Your task to perform on an android device: search for starred emails in the gmail app Image 0: 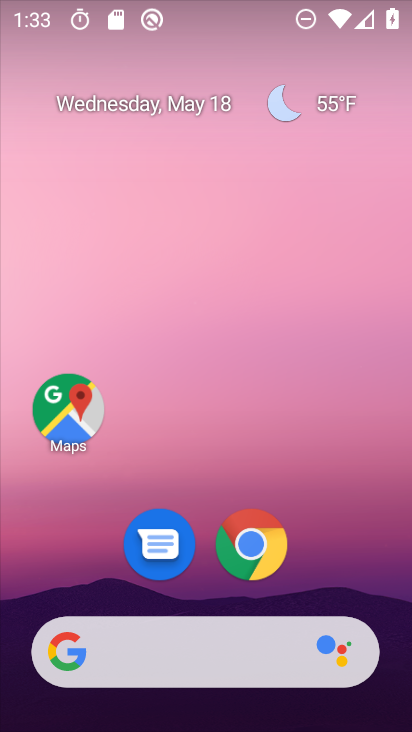
Step 0: drag from (335, 536) to (279, 87)
Your task to perform on an android device: search for starred emails in the gmail app Image 1: 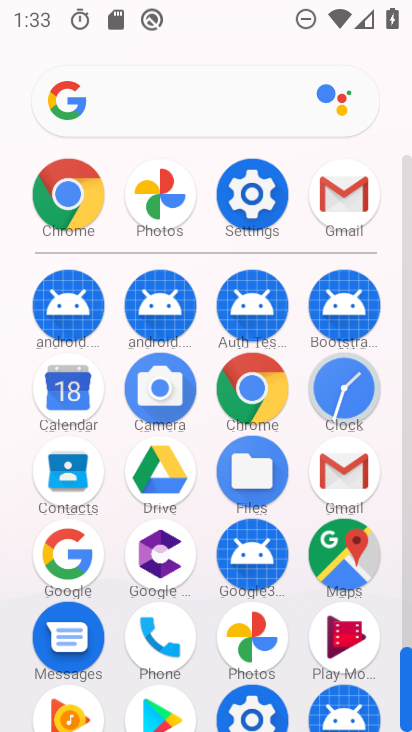
Step 1: click (339, 206)
Your task to perform on an android device: search for starred emails in the gmail app Image 2: 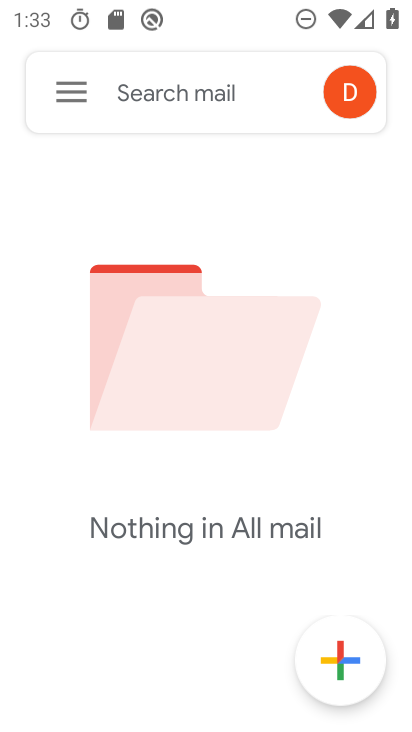
Step 2: click (57, 99)
Your task to perform on an android device: search for starred emails in the gmail app Image 3: 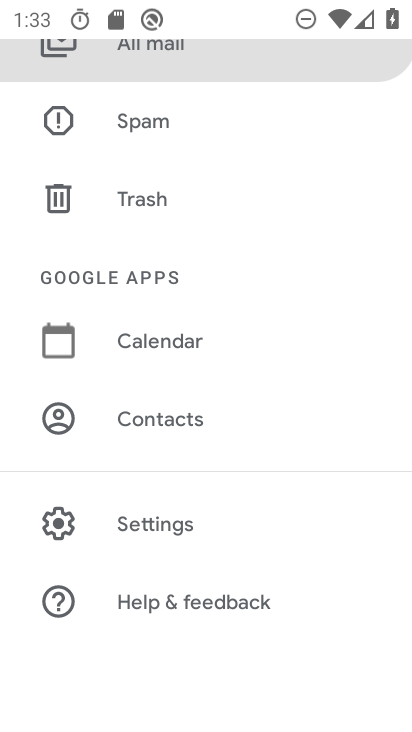
Step 3: drag from (166, 125) to (123, 519)
Your task to perform on an android device: search for starred emails in the gmail app Image 4: 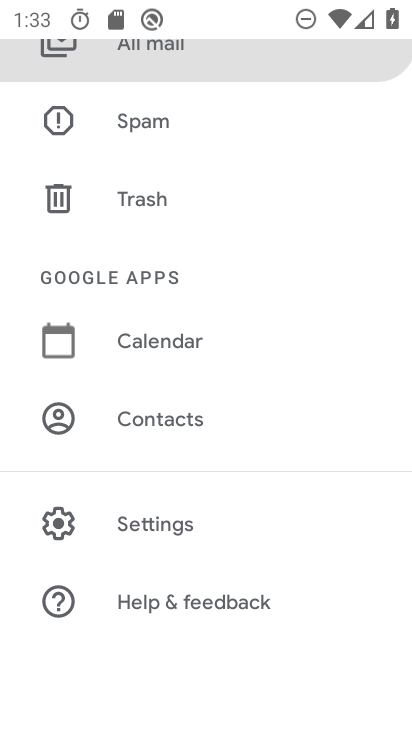
Step 4: drag from (267, 189) to (302, 644)
Your task to perform on an android device: search for starred emails in the gmail app Image 5: 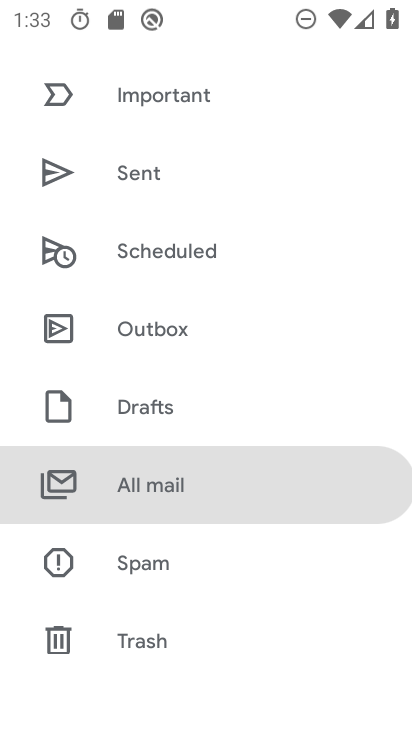
Step 5: drag from (278, 192) to (270, 532)
Your task to perform on an android device: search for starred emails in the gmail app Image 6: 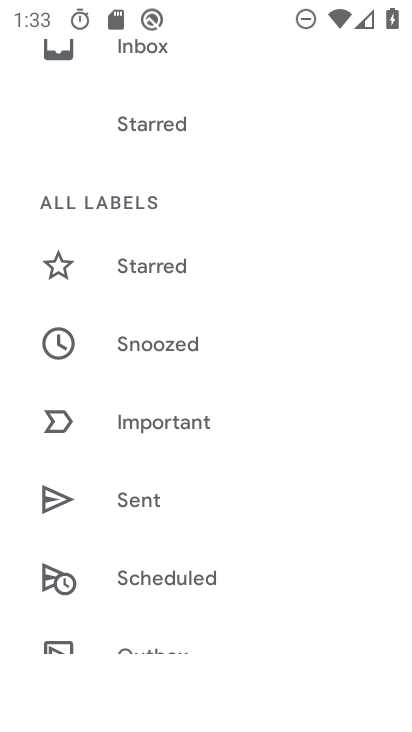
Step 6: click (182, 259)
Your task to perform on an android device: search for starred emails in the gmail app Image 7: 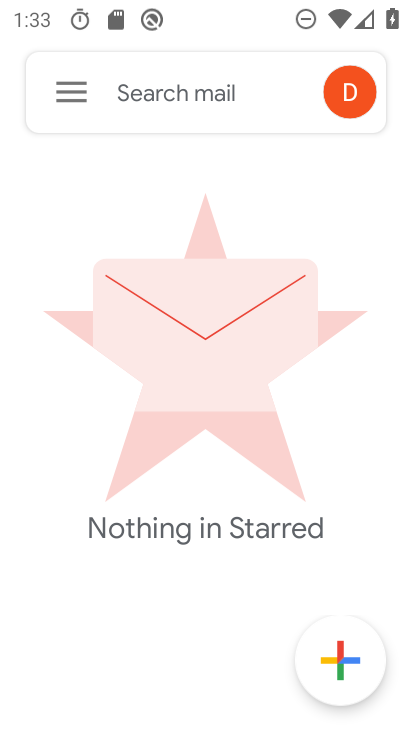
Step 7: task complete